Your task to perform on an android device: How much does the Sony TV cost? Image 0: 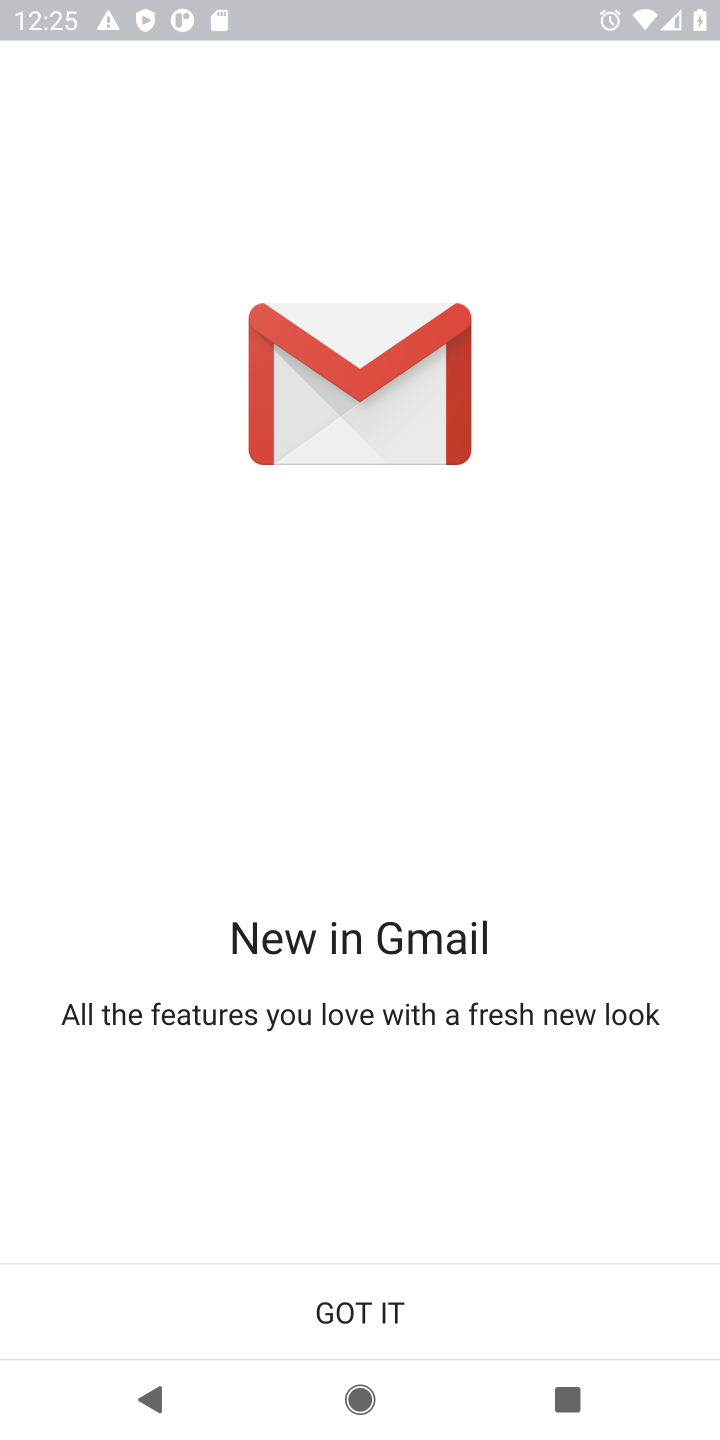
Step 0: press home button
Your task to perform on an android device: How much does the Sony TV cost? Image 1: 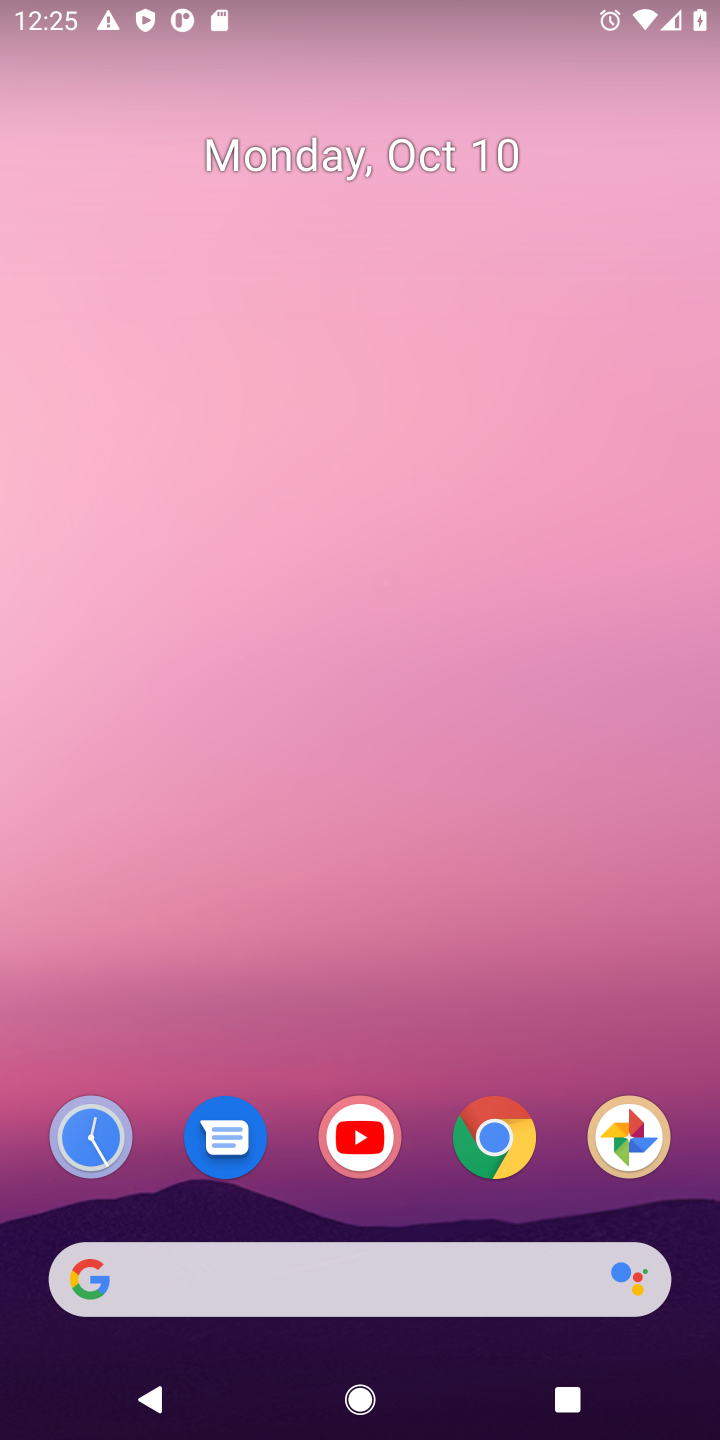
Step 1: drag from (433, 1178) to (336, 45)
Your task to perform on an android device: How much does the Sony TV cost? Image 2: 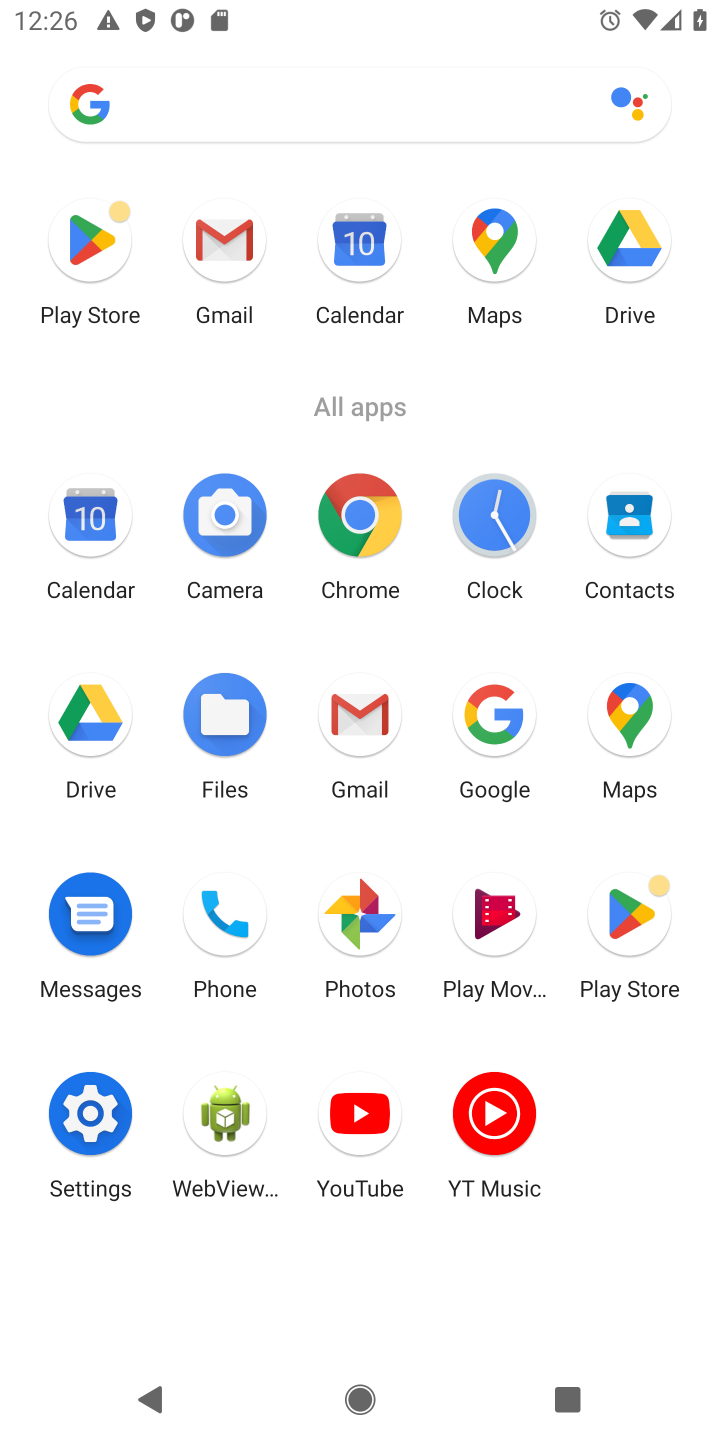
Step 2: click (370, 511)
Your task to perform on an android device: How much does the Sony TV cost? Image 3: 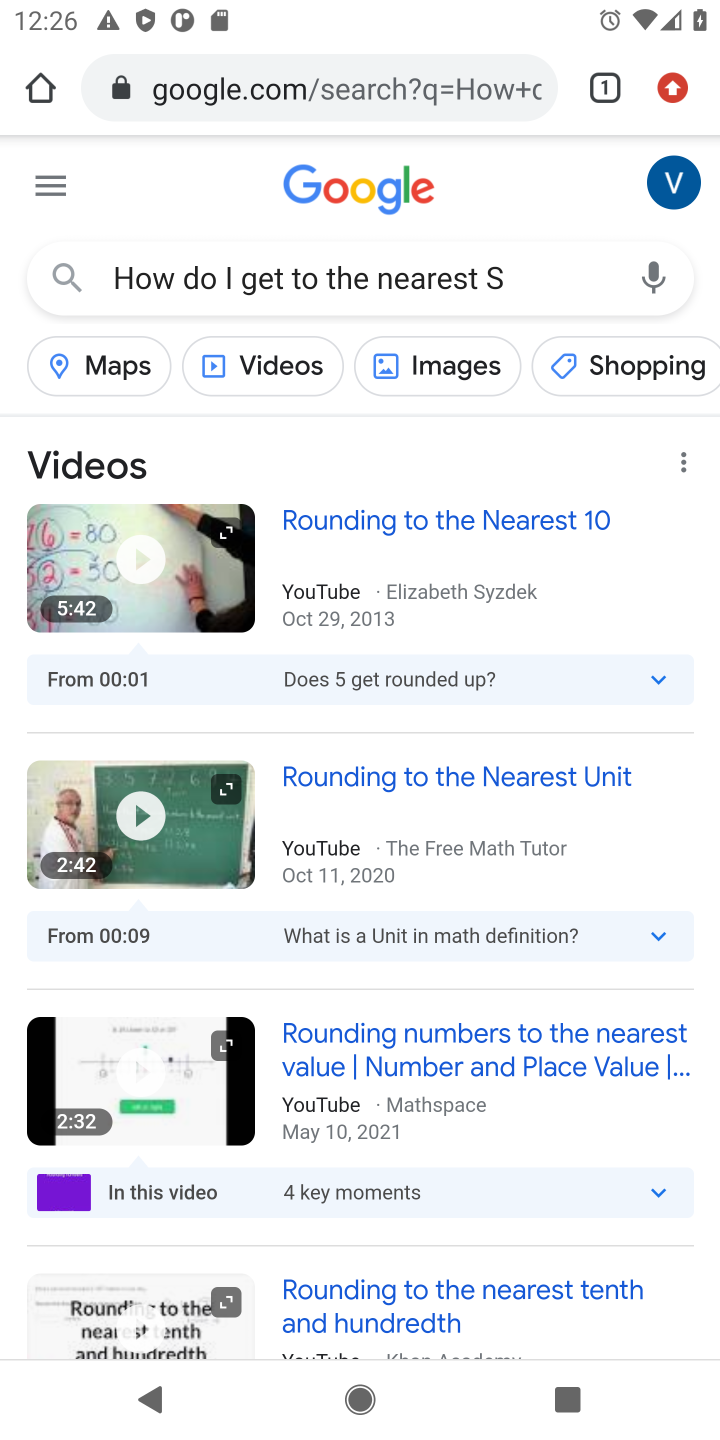
Step 3: click (278, 78)
Your task to perform on an android device: How much does the Sony TV cost? Image 4: 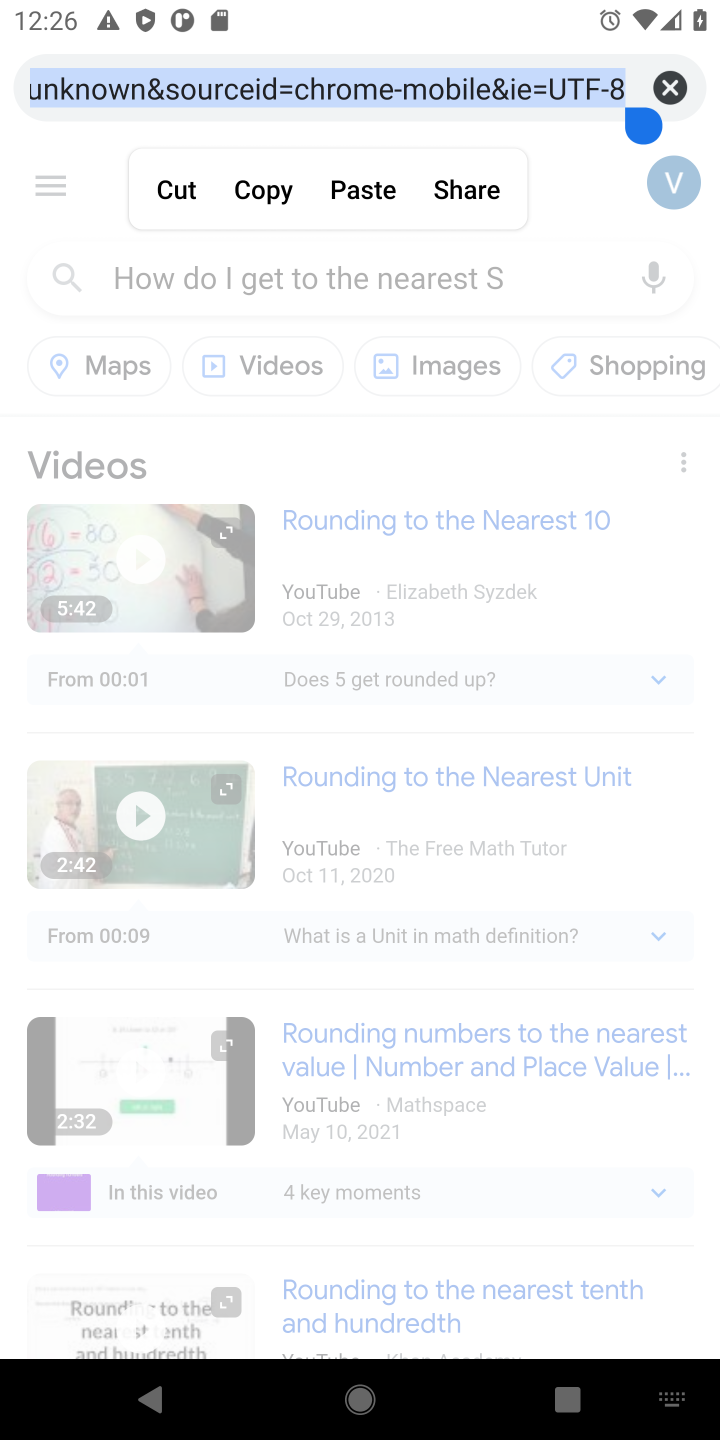
Step 4: click (669, 80)
Your task to perform on an android device: How much does the Sony TV cost? Image 5: 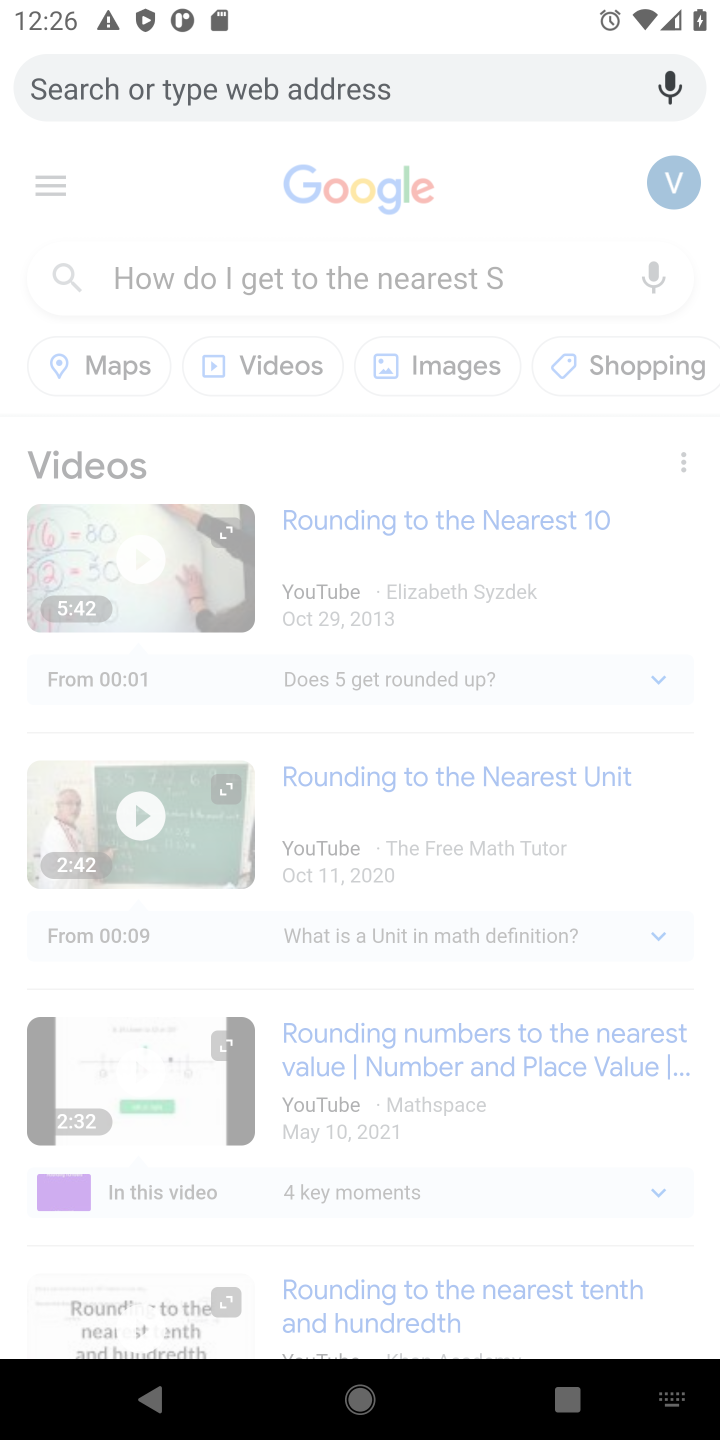
Step 5: type "How much does the Sony TV cost?  Drive by Wire Research Data collection program. Mark task status:   Additional Actions:  Text input: Type text here Episode stats: General: - Level name: dbw_hcp_launcher_prompt_list_v6 - Logging mode: prod - Step type: 1 - Reward: 0.0 - Cumulative Reward: 0.0 - Simulator type: oxygen - Oxygen device type: PIXEL_2_XL - Oxygen device API level: 30 - Screen density DPI: 540 - Font scale factor: 1.1 - Current package: com.android.chrome - Current activity: com.google.android.apps.chrome.Main - Oxygen device region: europe-west - Logged in account: tau.velociraptbr.1654798856748@gmail.com - Frames per second (target): 5.0 (60.0) - Max. possible frames per second: 4.9  Level extras: - current_activity: com.android.chrome/com.google.android.apps.chrome.Main - dataset_format: launcher_app_general_v5_format - font_scale_factor: 1.1 - goal_info: How much does the Sony TV cost? - goal_template: How much does the Sony TV cost? - oxygen_device_api_level: 30 - oxygen_device_resolution: [2880 1440] - oxygen_device_type: PIXEL_2_XL - screen_density_dpi: 540  Environment task extras:"
Your task to perform on an android device: How much does the Sony TV cost? Image 6: 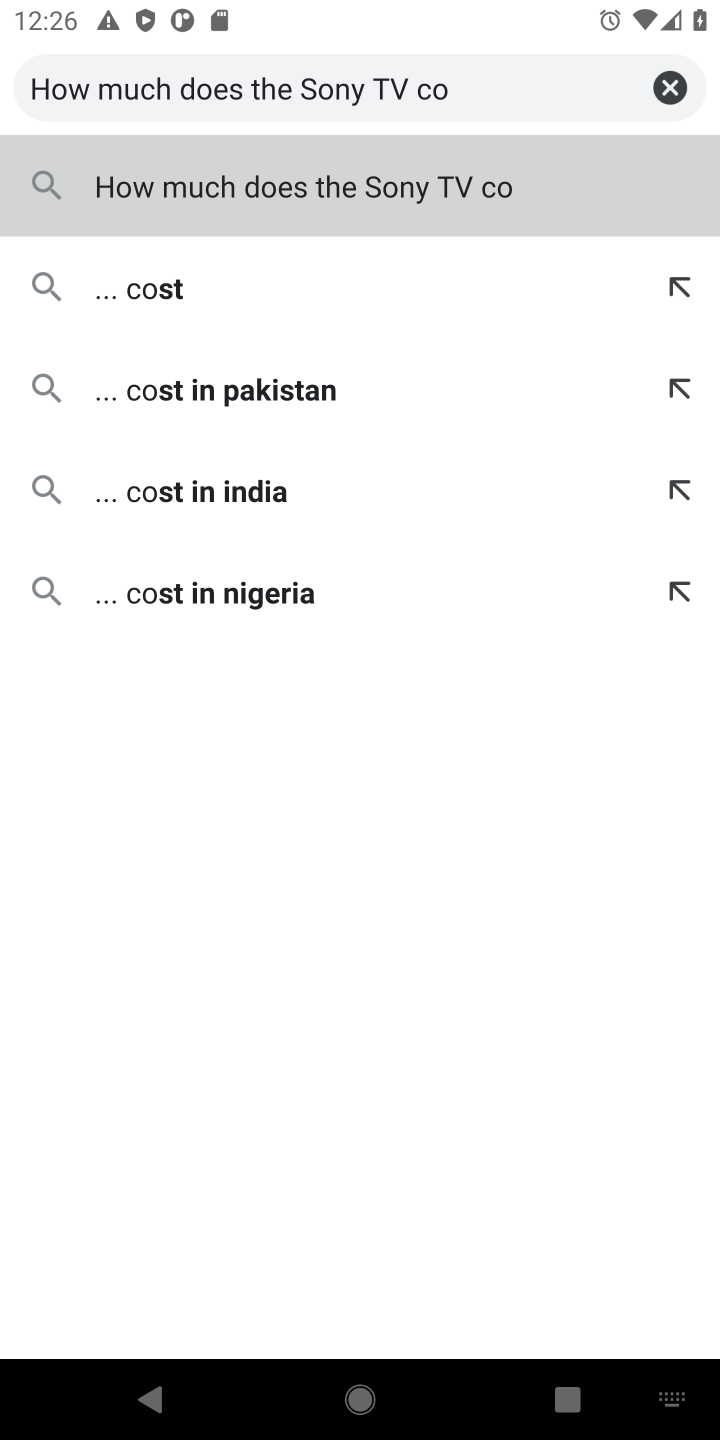
Step 6: click (366, 192)
Your task to perform on an android device: How much does the Sony TV cost? Image 7: 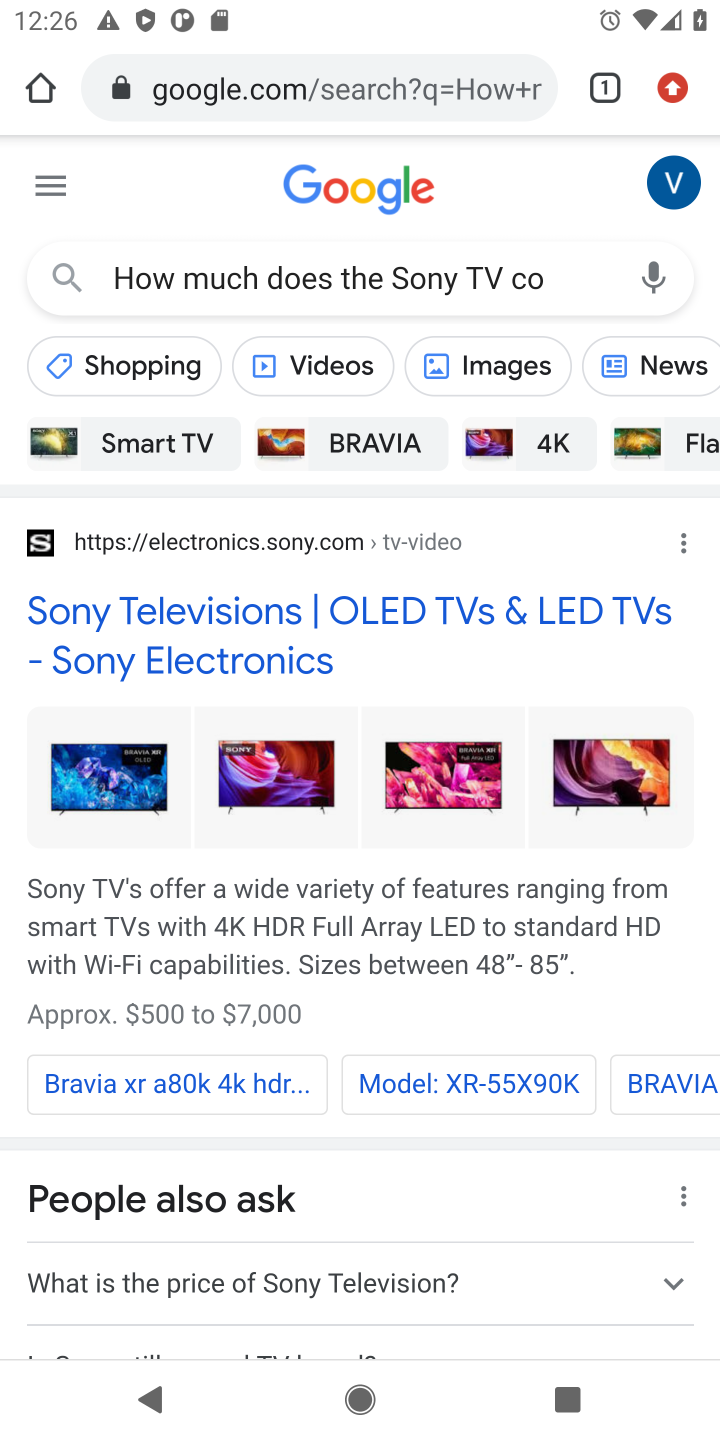
Step 7: task complete